Your task to perform on an android device: all mails in gmail Image 0: 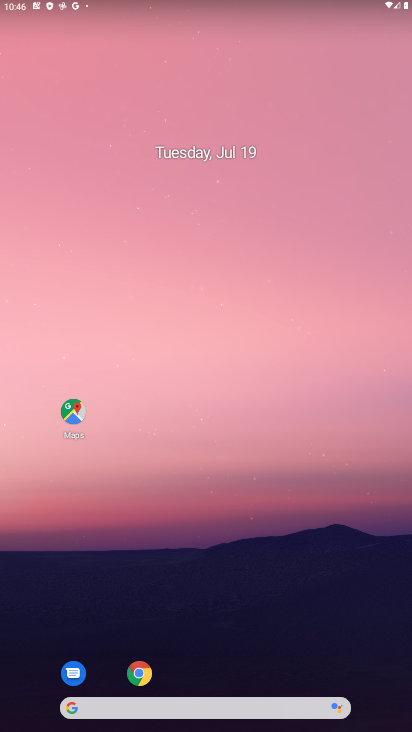
Step 0: drag from (271, 650) to (248, 54)
Your task to perform on an android device: all mails in gmail Image 1: 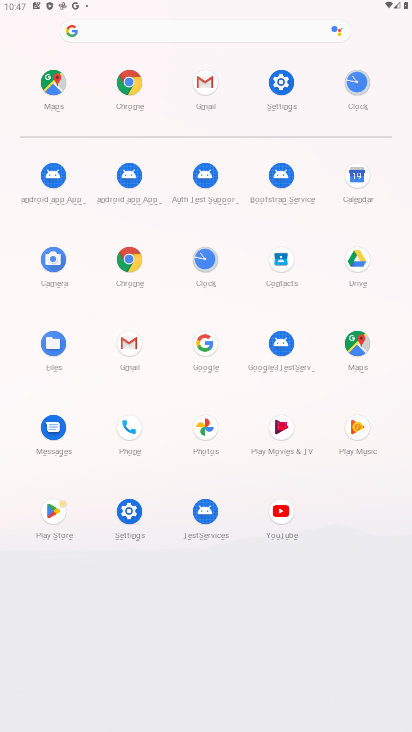
Step 1: click (216, 83)
Your task to perform on an android device: all mails in gmail Image 2: 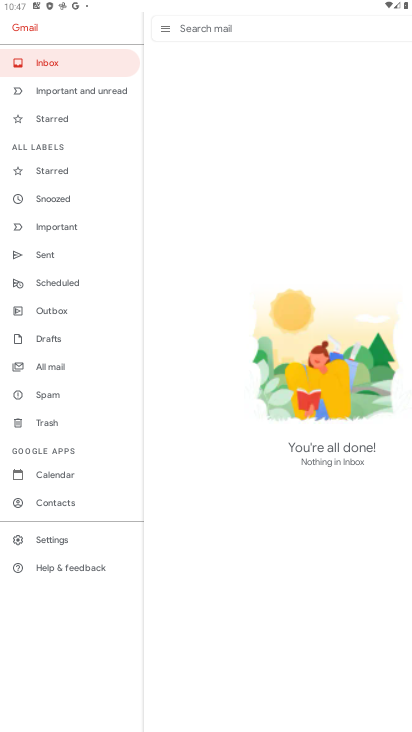
Step 2: click (52, 376)
Your task to perform on an android device: all mails in gmail Image 3: 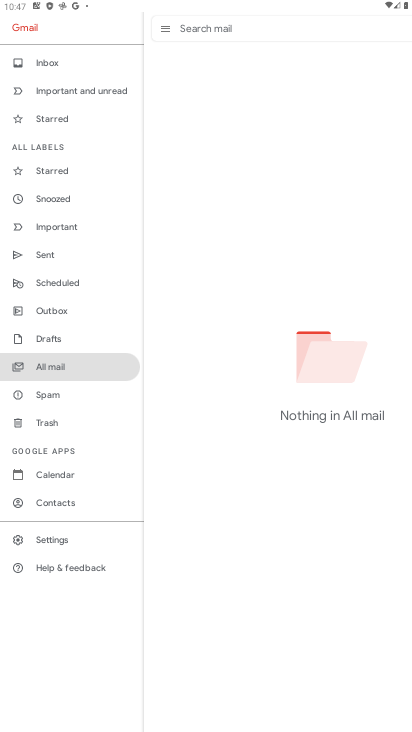
Step 3: task complete